Your task to perform on an android device: turn on translation in the chrome app Image 0: 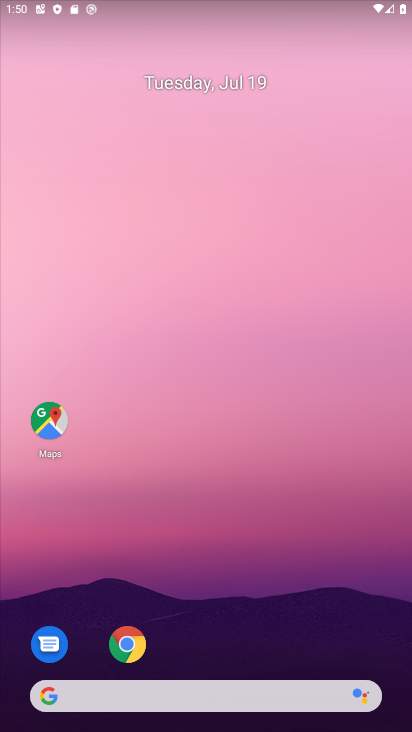
Step 0: click (129, 651)
Your task to perform on an android device: turn on translation in the chrome app Image 1: 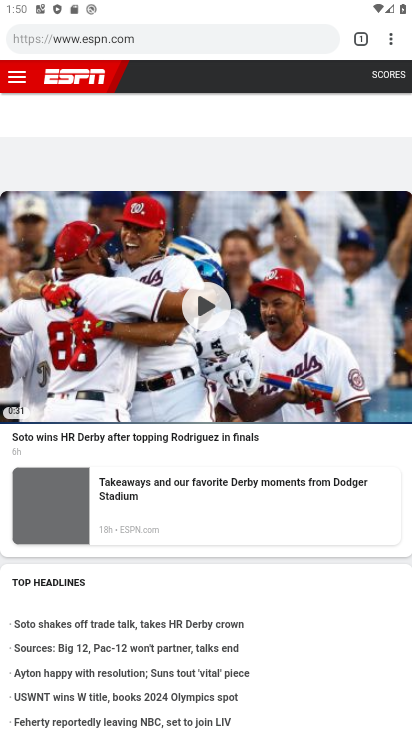
Step 1: click (393, 38)
Your task to perform on an android device: turn on translation in the chrome app Image 2: 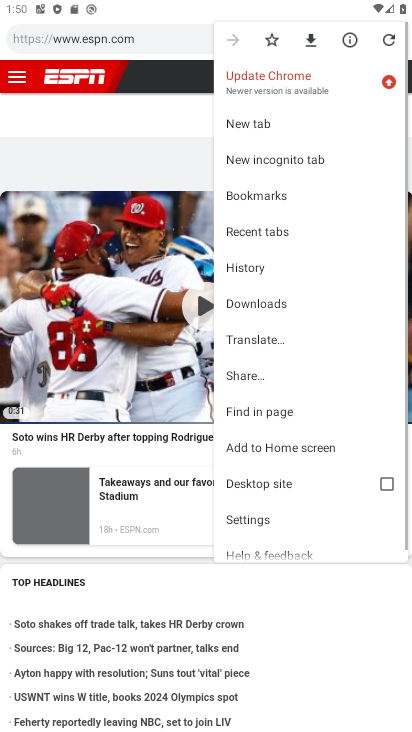
Step 2: click (393, 38)
Your task to perform on an android device: turn on translation in the chrome app Image 3: 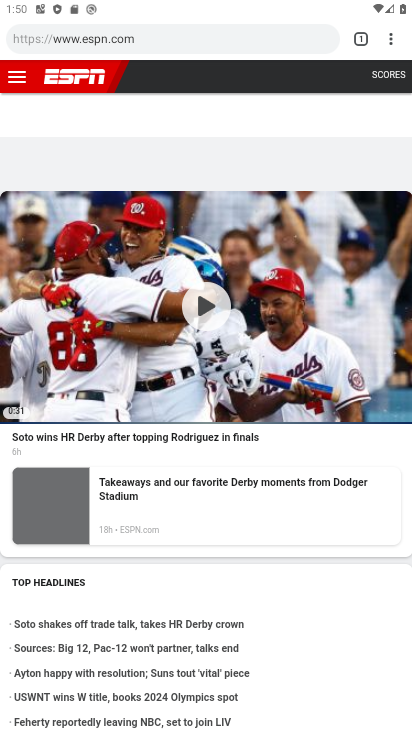
Step 3: click (386, 36)
Your task to perform on an android device: turn on translation in the chrome app Image 4: 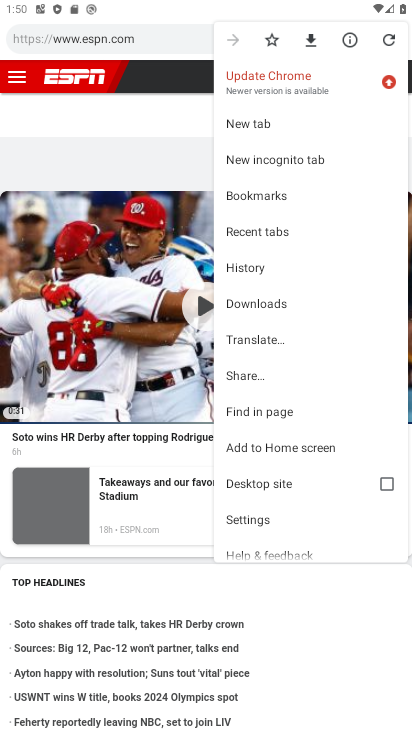
Step 4: click (262, 513)
Your task to perform on an android device: turn on translation in the chrome app Image 5: 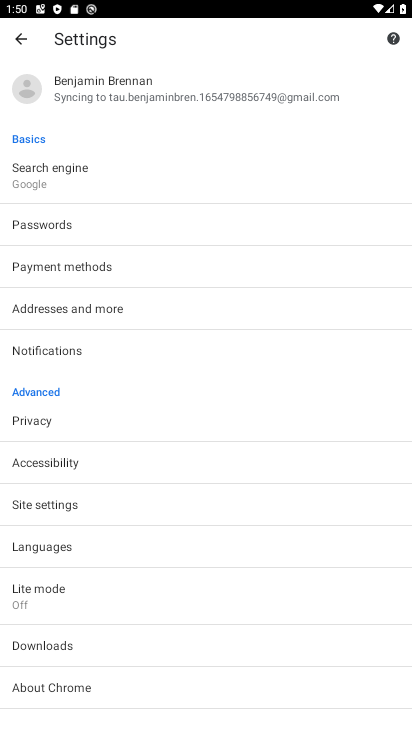
Step 5: click (79, 543)
Your task to perform on an android device: turn on translation in the chrome app Image 6: 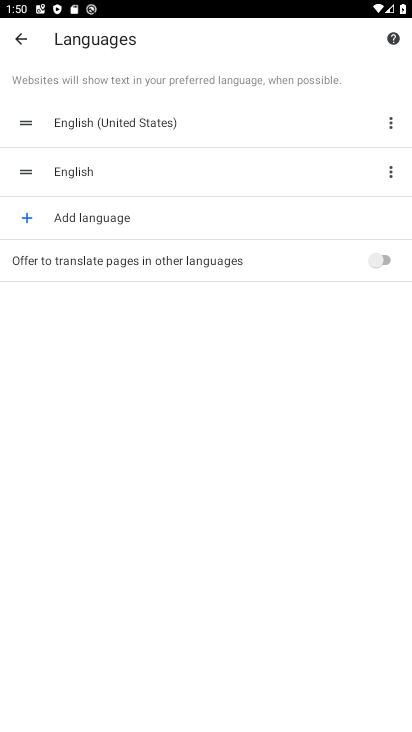
Step 6: click (390, 256)
Your task to perform on an android device: turn on translation in the chrome app Image 7: 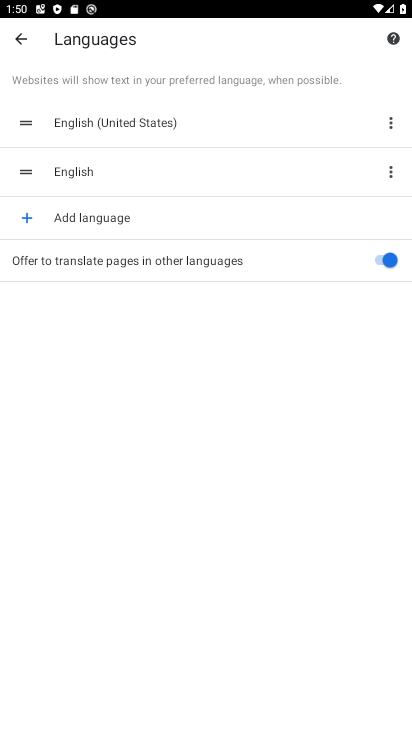
Step 7: task complete